Your task to perform on an android device: Search for the new Jordans on Nike.com Image 0: 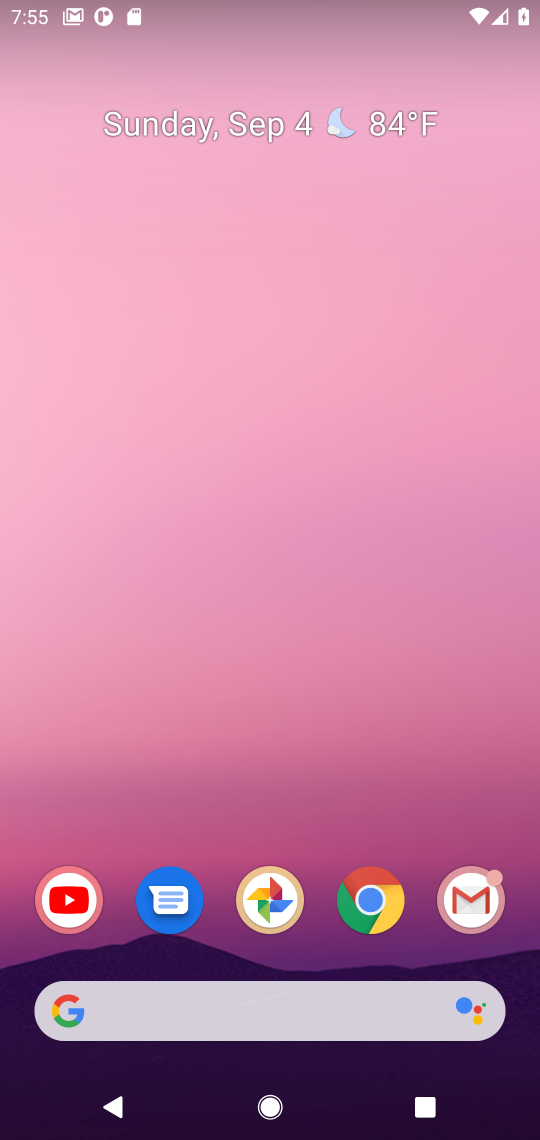
Step 0: drag from (283, 695) to (226, 196)
Your task to perform on an android device: Search for the new Jordans on Nike.com Image 1: 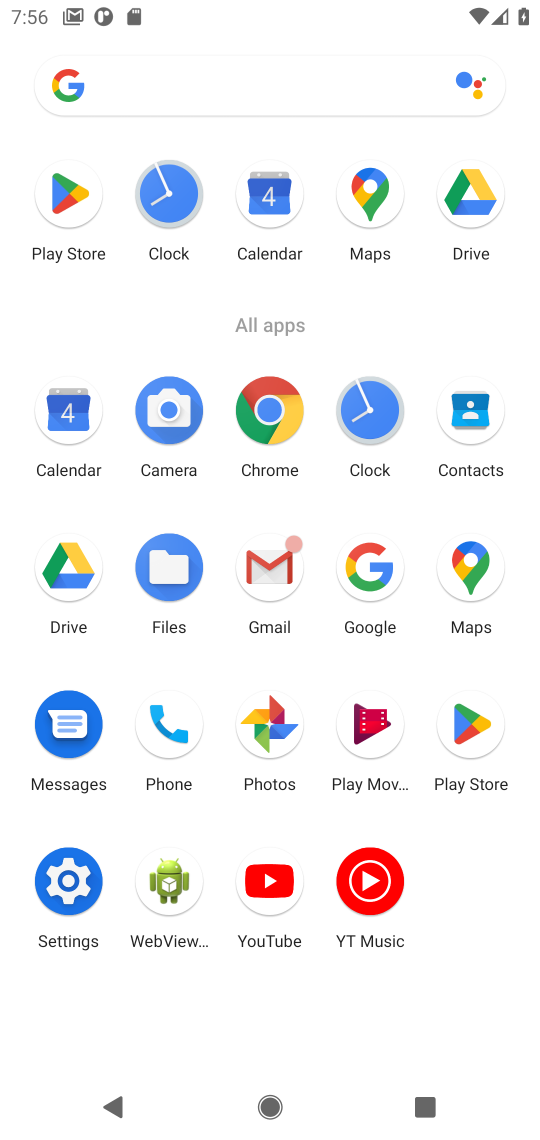
Step 1: click (269, 416)
Your task to perform on an android device: Search for the new Jordans on Nike.com Image 2: 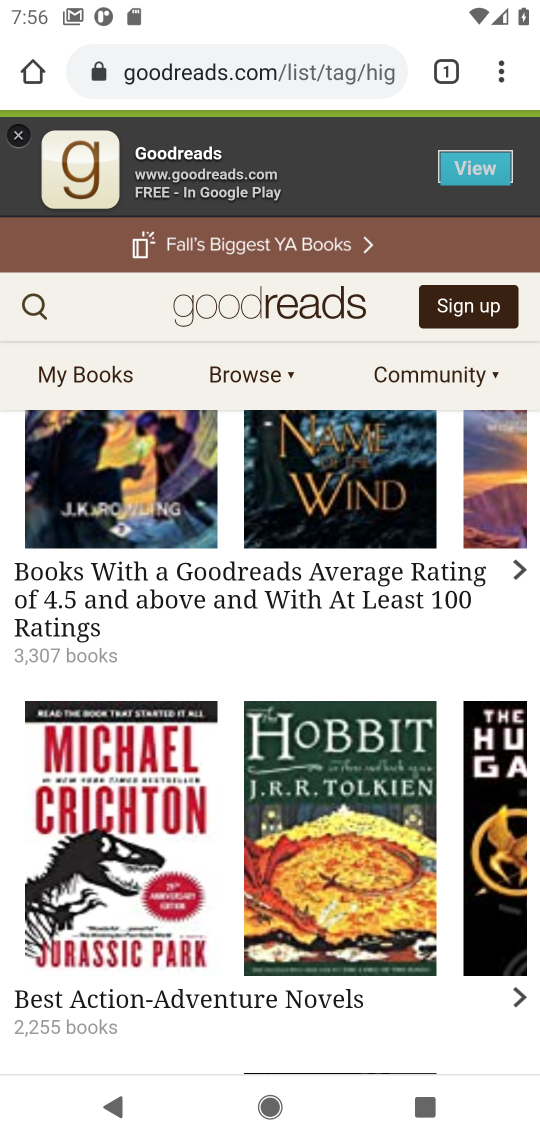
Step 2: click (301, 76)
Your task to perform on an android device: Search for the new Jordans on Nike.com Image 3: 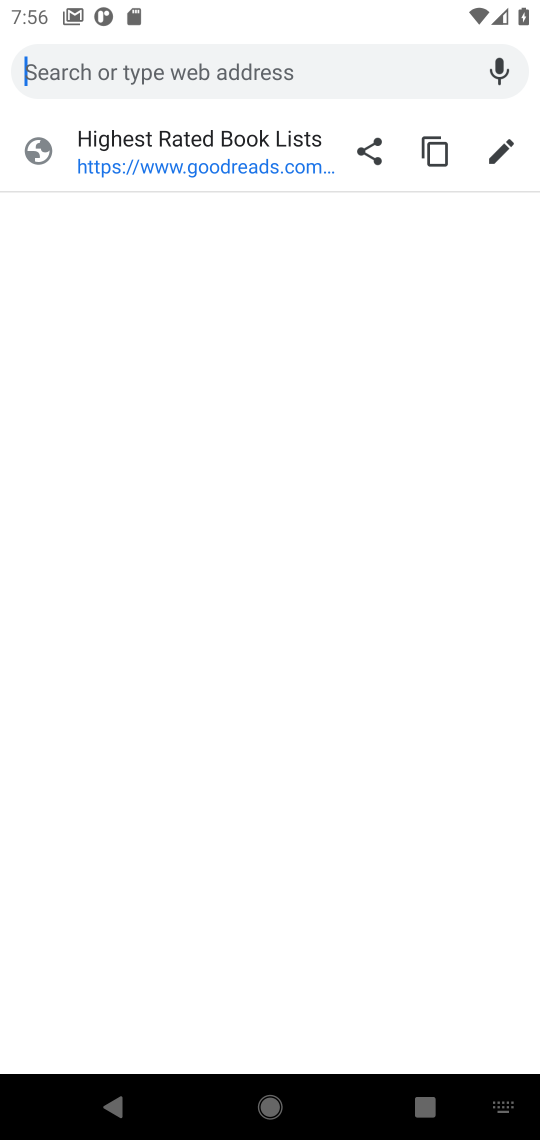
Step 3: type "nnew Jordans on Nike.com"
Your task to perform on an android device: Search for the new Jordans on Nike.com Image 4: 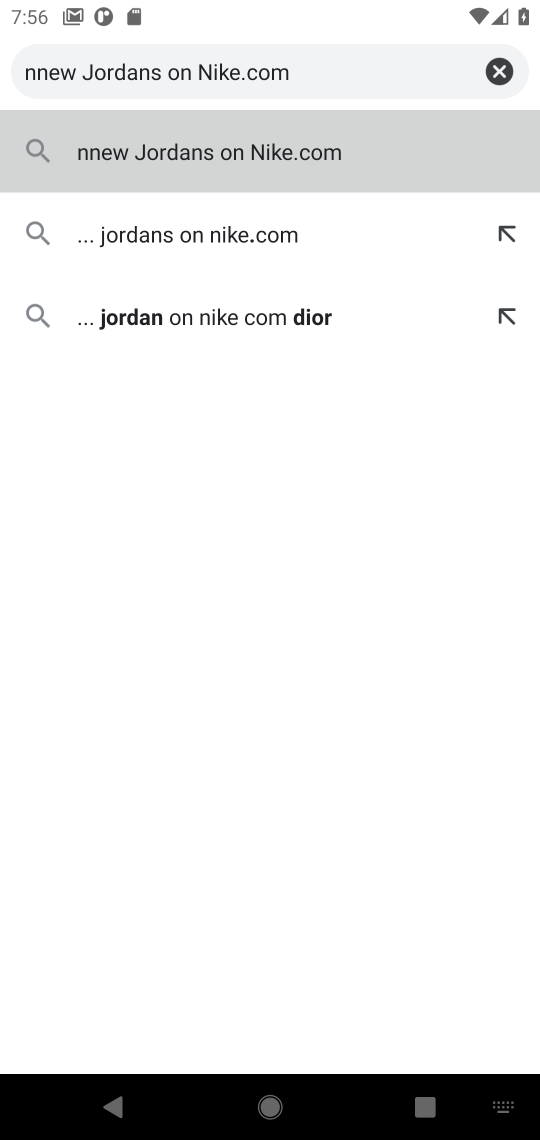
Step 4: press enter
Your task to perform on an android device: Search for the new Jordans on Nike.com Image 5: 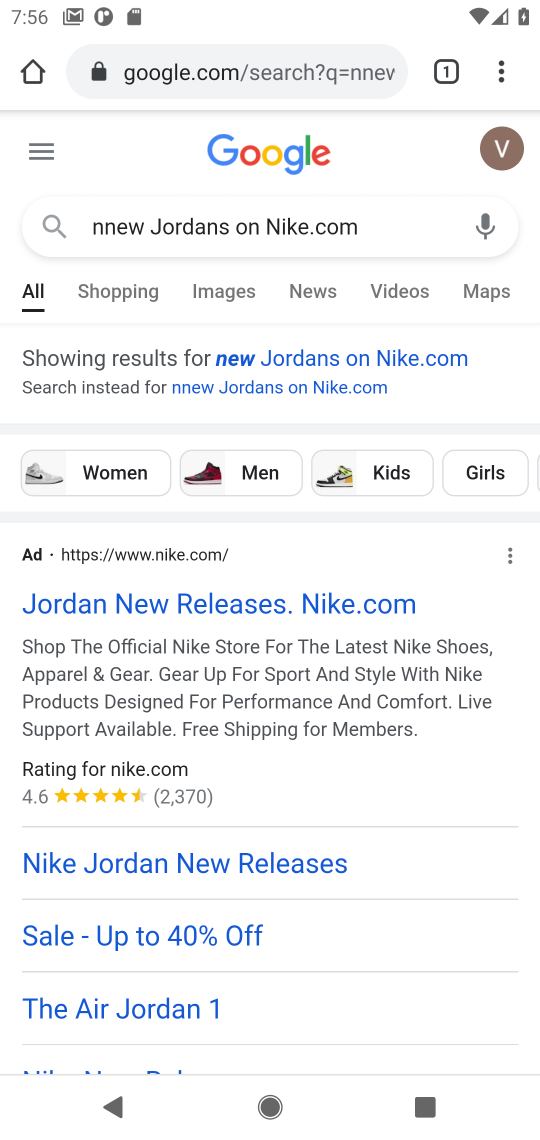
Step 5: click (266, 611)
Your task to perform on an android device: Search for the new Jordans on Nike.com Image 6: 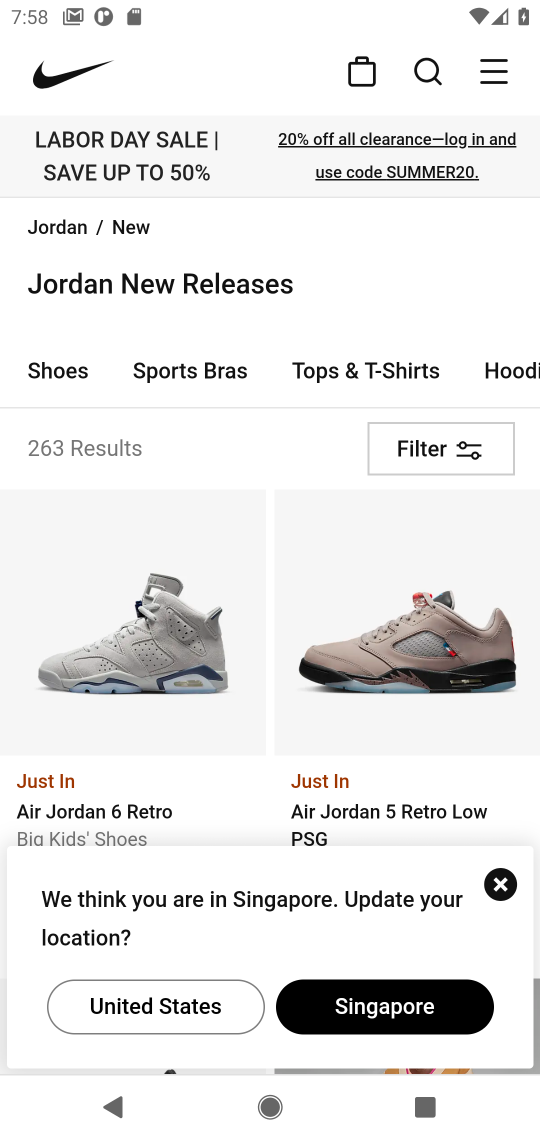
Step 6: task complete